Your task to perform on an android device: Open Youtube and go to "Your channel" Image 0: 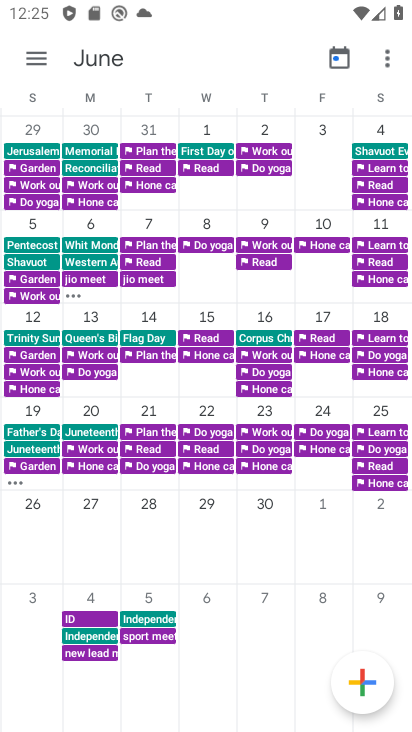
Step 0: press home button
Your task to perform on an android device: Open Youtube and go to "Your channel" Image 1: 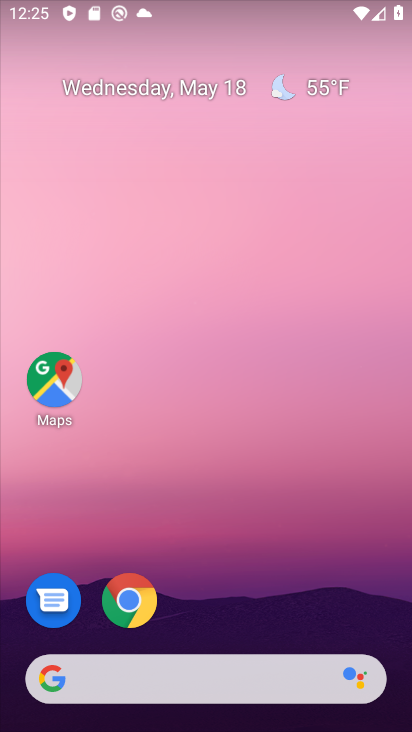
Step 1: drag from (208, 667) to (175, 37)
Your task to perform on an android device: Open Youtube and go to "Your channel" Image 2: 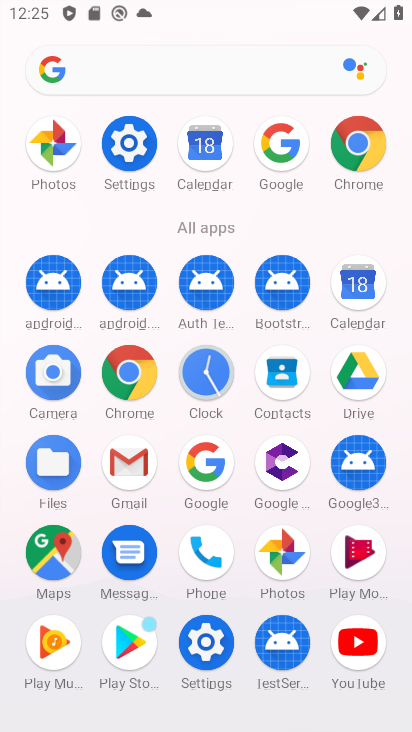
Step 2: click (367, 650)
Your task to perform on an android device: Open Youtube and go to "Your channel" Image 3: 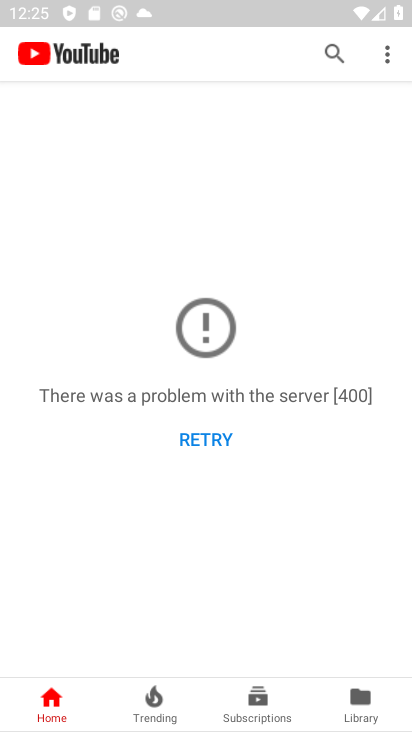
Step 3: task complete